Your task to perform on an android device: change alarm snooze length Image 0: 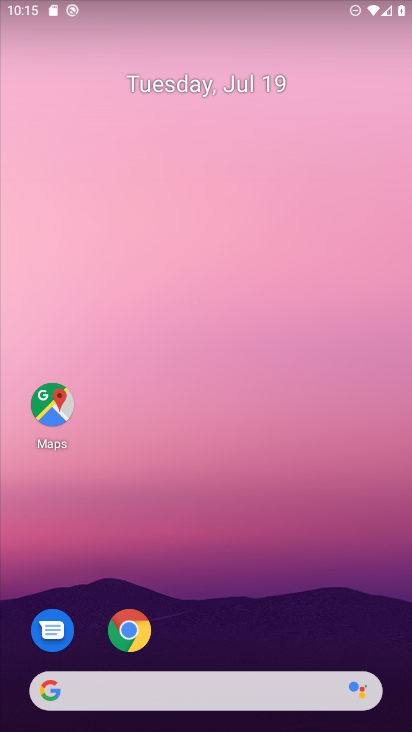
Step 0: drag from (127, 388) to (197, 123)
Your task to perform on an android device: change alarm snooze length Image 1: 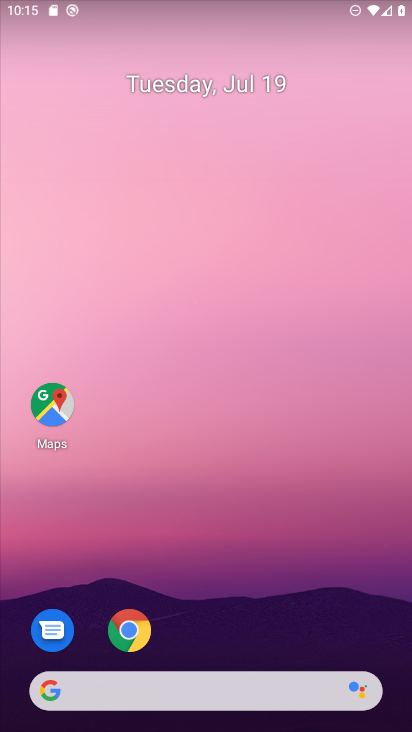
Step 1: drag from (136, 299) to (248, 12)
Your task to perform on an android device: change alarm snooze length Image 2: 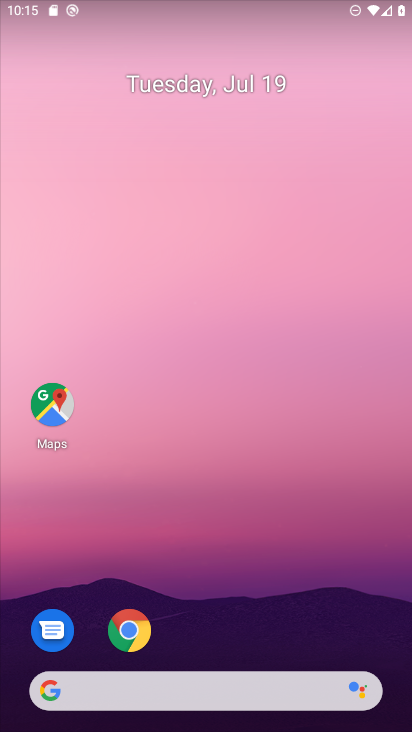
Step 2: drag from (15, 692) to (191, 12)
Your task to perform on an android device: change alarm snooze length Image 3: 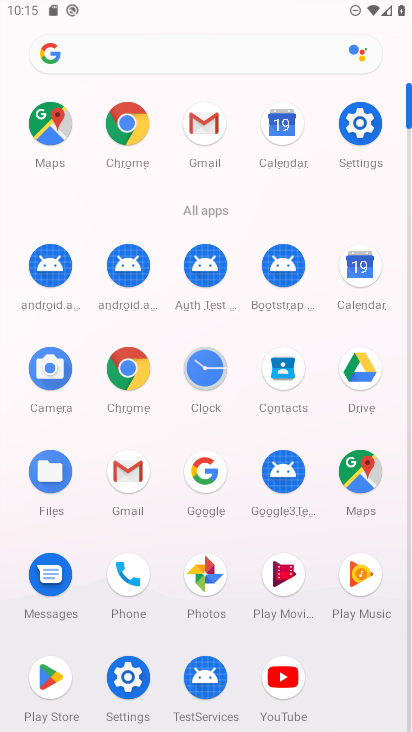
Step 3: click (203, 371)
Your task to perform on an android device: change alarm snooze length Image 4: 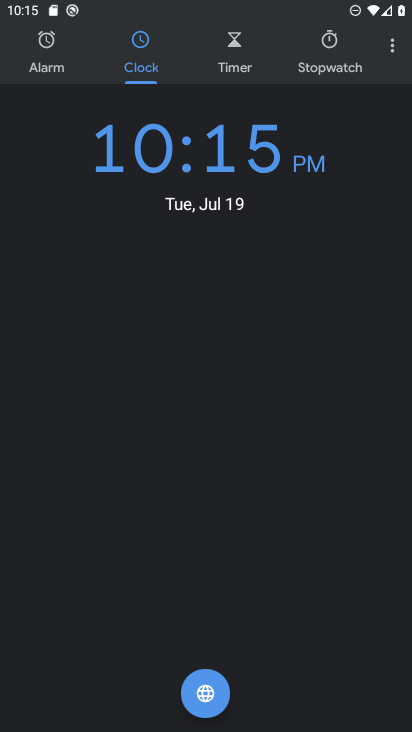
Step 4: click (50, 52)
Your task to perform on an android device: change alarm snooze length Image 5: 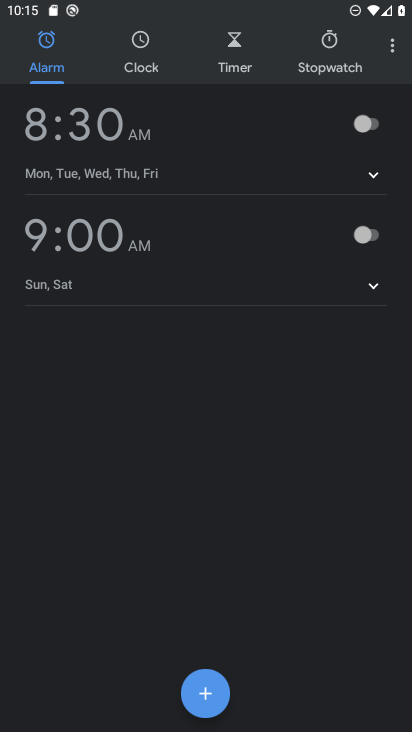
Step 5: click (390, 44)
Your task to perform on an android device: change alarm snooze length Image 6: 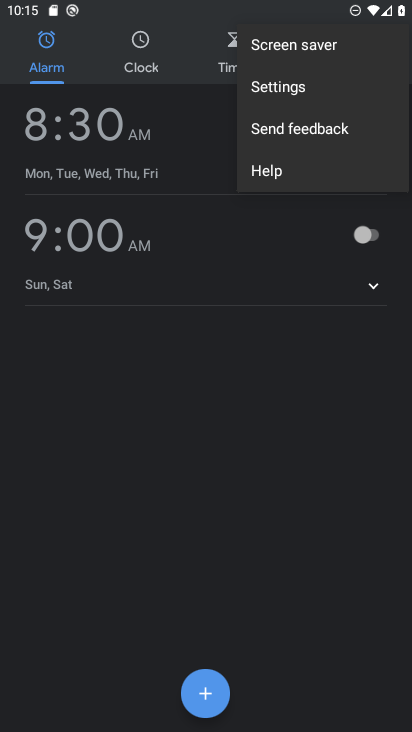
Step 6: click (274, 74)
Your task to perform on an android device: change alarm snooze length Image 7: 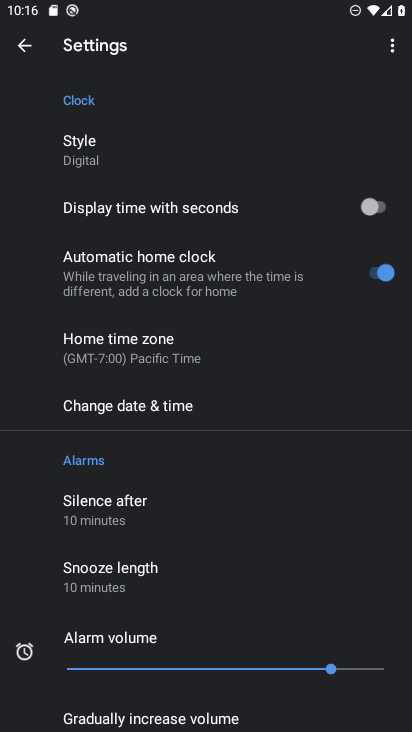
Step 7: click (157, 584)
Your task to perform on an android device: change alarm snooze length Image 8: 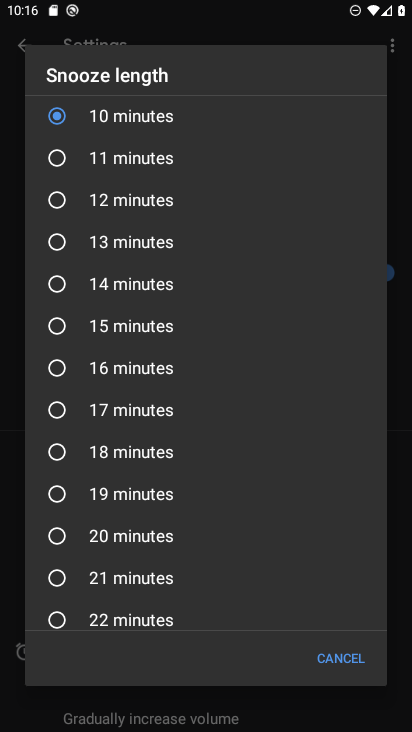
Step 8: click (60, 330)
Your task to perform on an android device: change alarm snooze length Image 9: 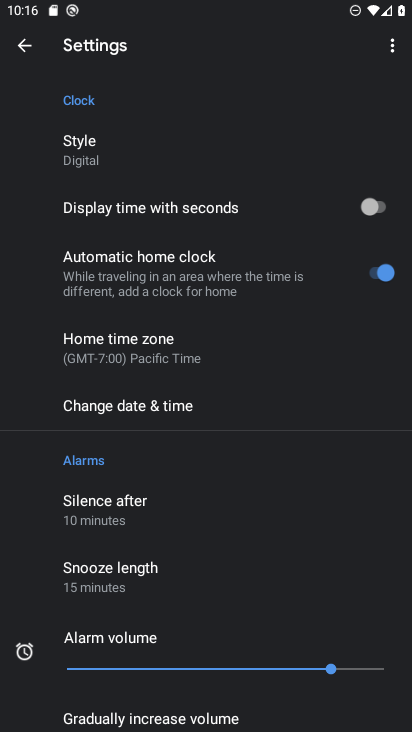
Step 9: task complete